Your task to perform on an android device: Search for the best selling books on Target. Image 0: 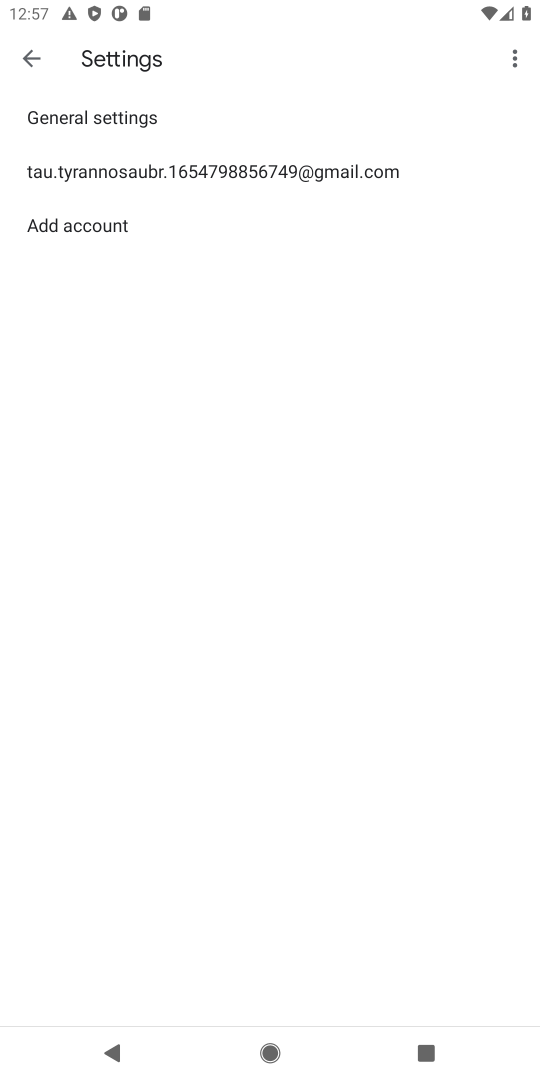
Step 0: press home button
Your task to perform on an android device: Search for the best selling books on Target. Image 1: 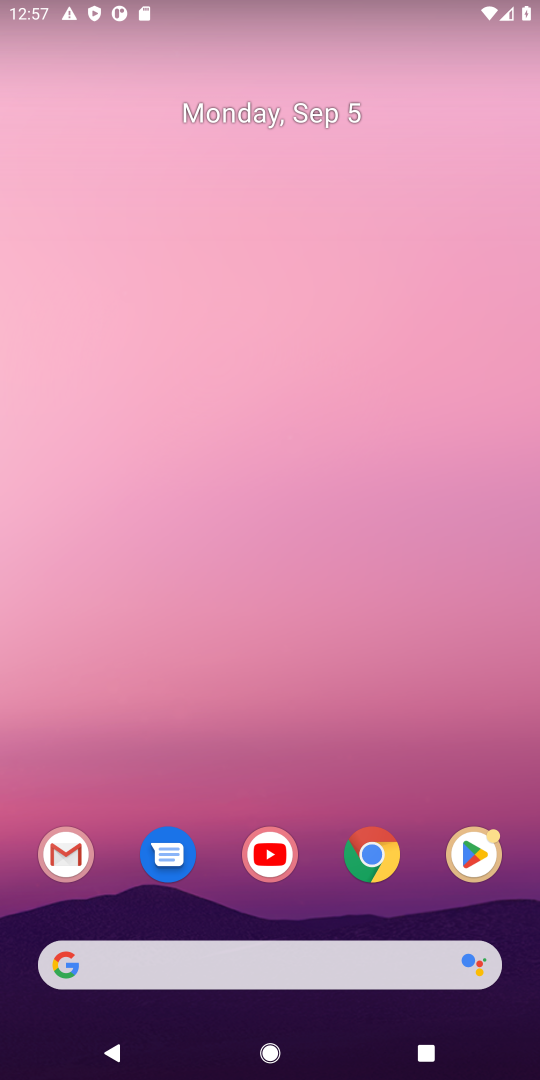
Step 1: click (313, 971)
Your task to perform on an android device: Search for the best selling books on Target. Image 2: 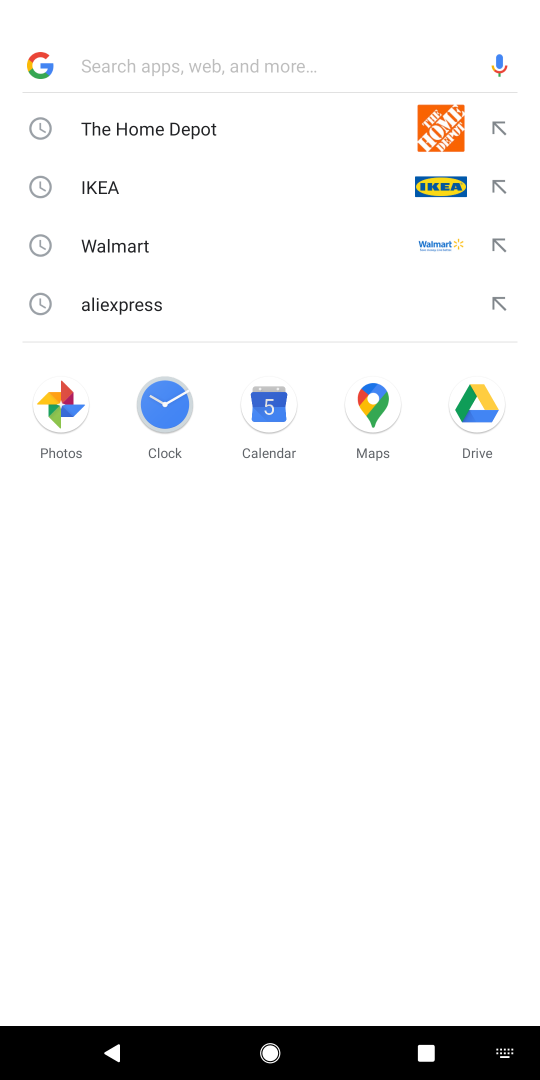
Step 2: type "target"
Your task to perform on an android device: Search for the best selling books on Target. Image 3: 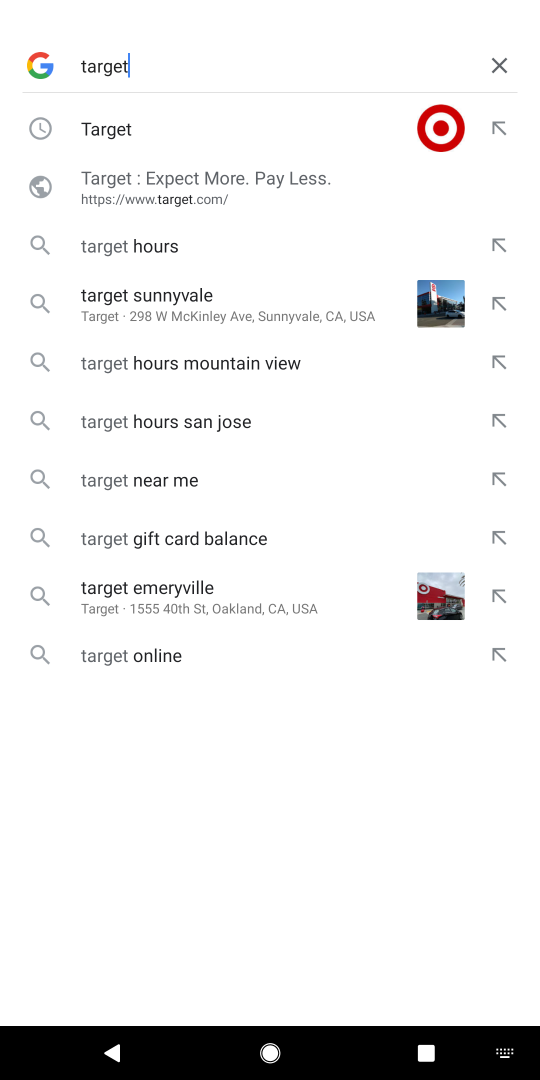
Step 3: press enter
Your task to perform on an android device: Search for the best selling books on Target. Image 4: 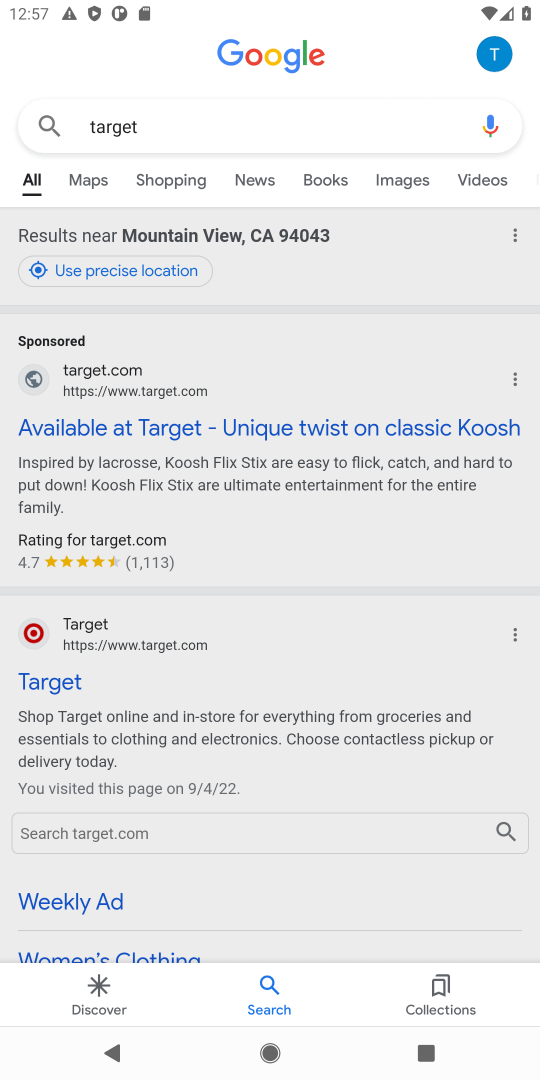
Step 4: click (445, 432)
Your task to perform on an android device: Search for the best selling books on Target. Image 5: 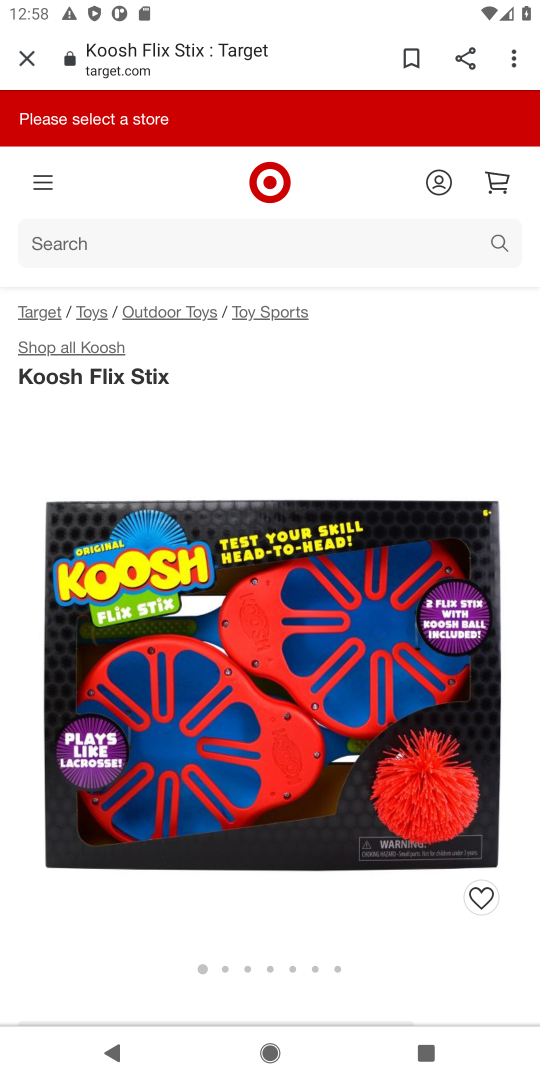
Step 5: click (294, 227)
Your task to perform on an android device: Search for the best selling books on Target. Image 6: 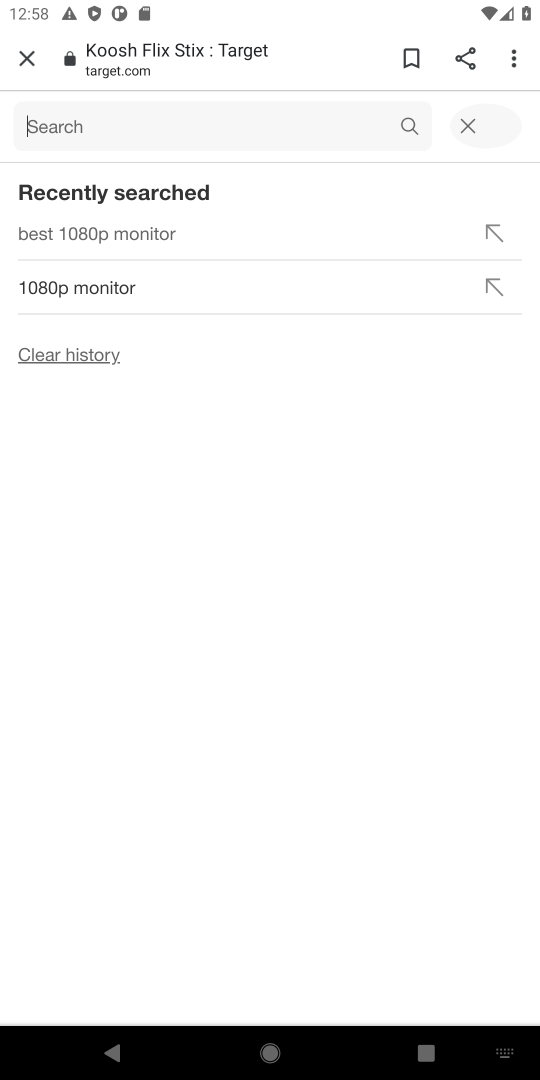
Step 6: type "best selling books"
Your task to perform on an android device: Search for the best selling books on Target. Image 7: 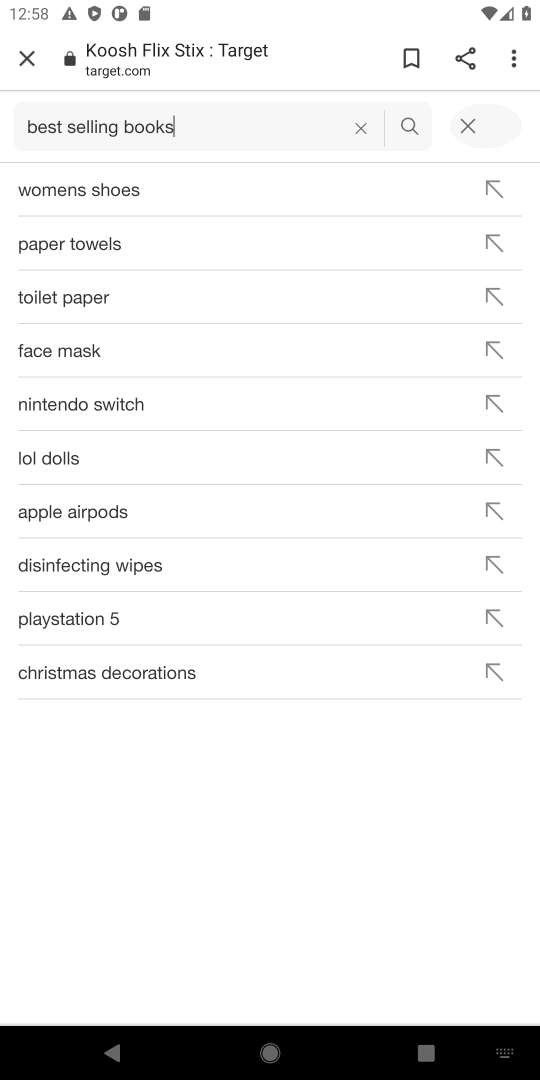
Step 7: press enter
Your task to perform on an android device: Search for the best selling books on Target. Image 8: 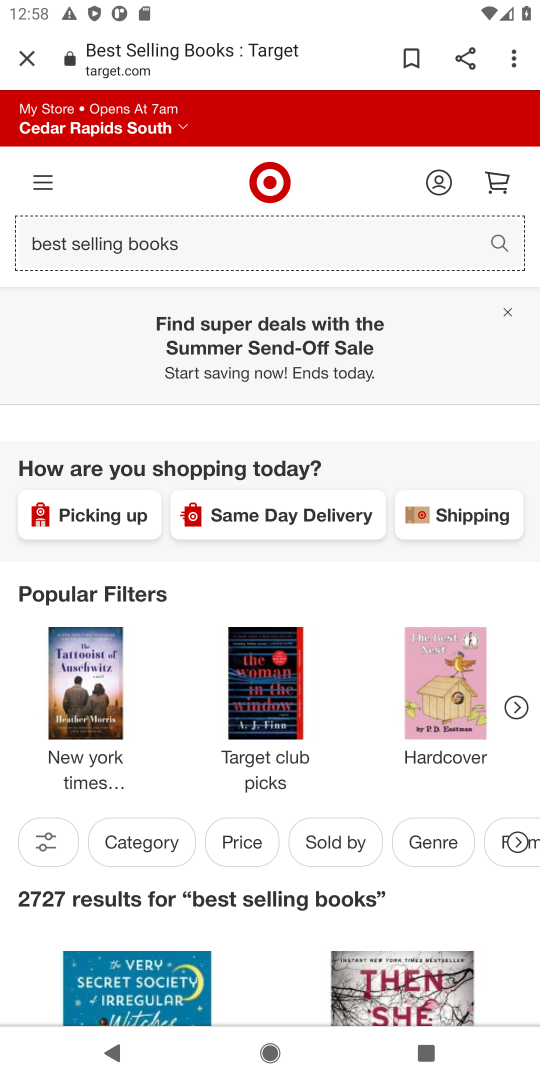
Step 8: task complete